Your task to perform on an android device: set default search engine in the chrome app Image 0: 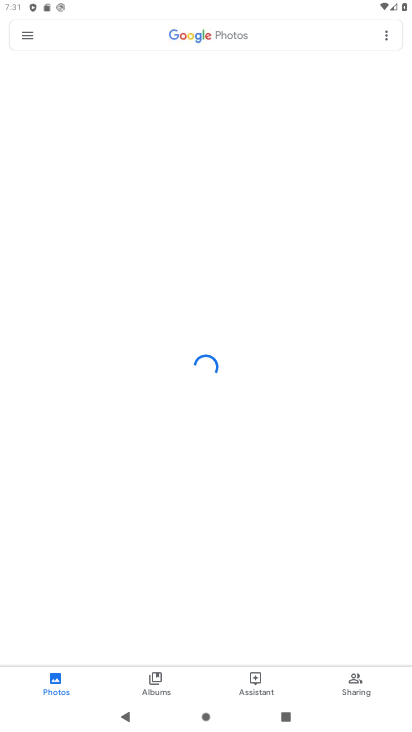
Step 0: press home button
Your task to perform on an android device: set default search engine in the chrome app Image 1: 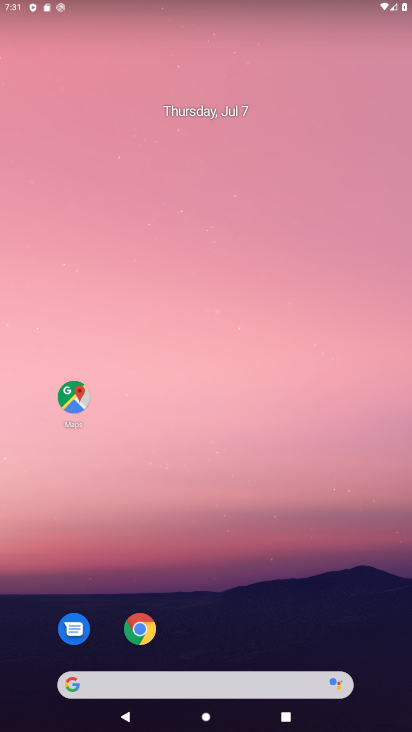
Step 1: drag from (327, 619) to (361, 46)
Your task to perform on an android device: set default search engine in the chrome app Image 2: 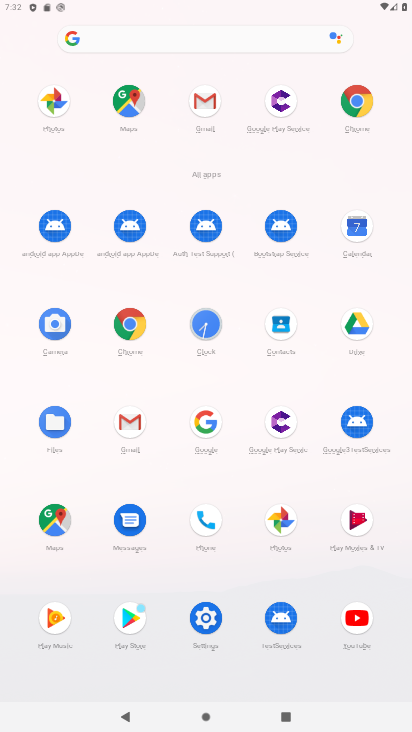
Step 2: click (133, 321)
Your task to perform on an android device: set default search engine in the chrome app Image 3: 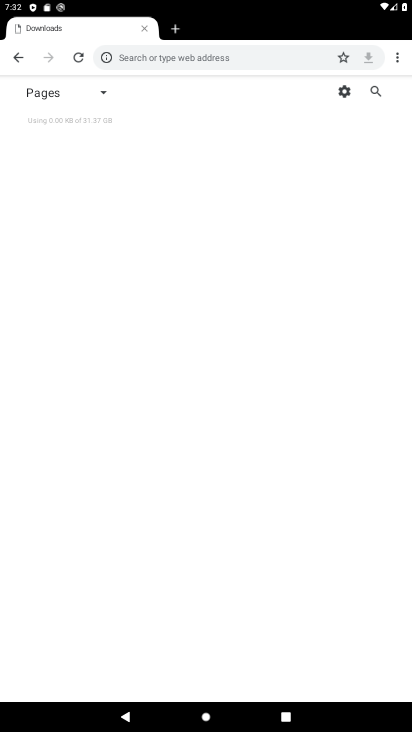
Step 3: click (394, 59)
Your task to perform on an android device: set default search engine in the chrome app Image 4: 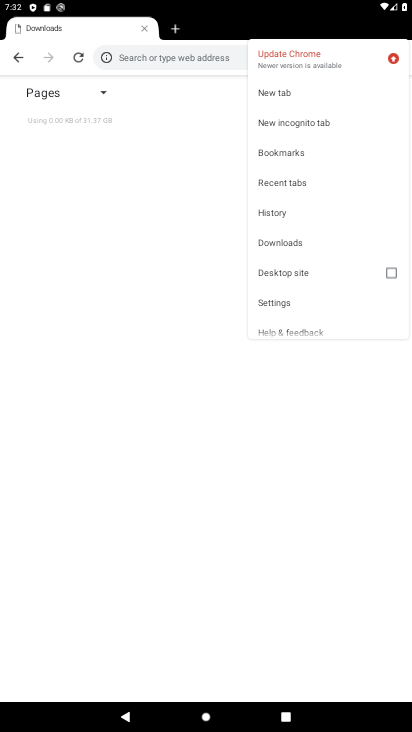
Step 4: click (305, 305)
Your task to perform on an android device: set default search engine in the chrome app Image 5: 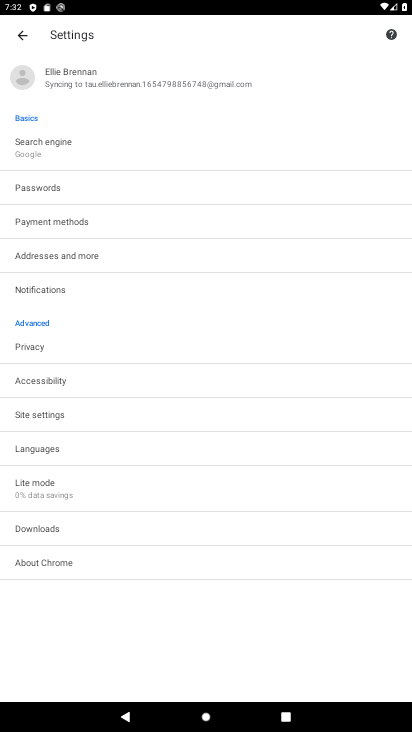
Step 5: click (81, 156)
Your task to perform on an android device: set default search engine in the chrome app Image 6: 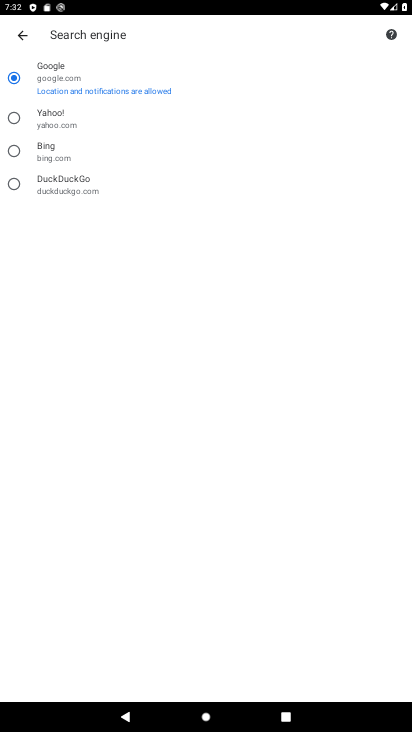
Step 6: click (46, 148)
Your task to perform on an android device: set default search engine in the chrome app Image 7: 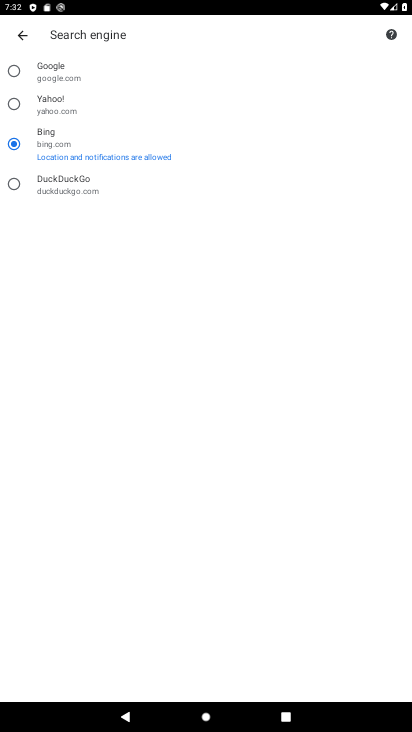
Step 7: task complete